Your task to perform on an android device: Open Google Chrome and click the shortcut for Amazon.com Image 0: 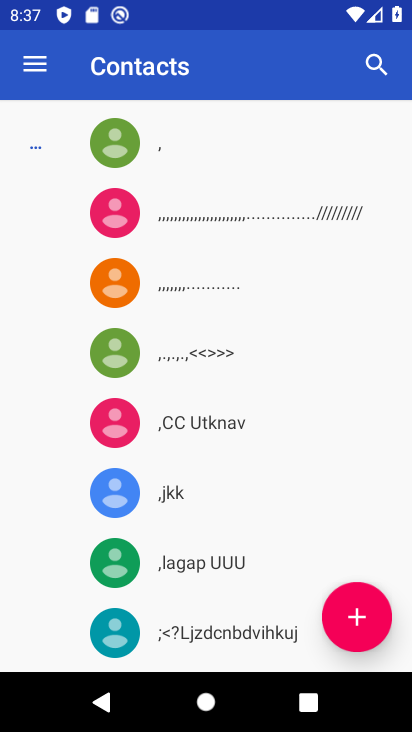
Step 0: press home button
Your task to perform on an android device: Open Google Chrome and click the shortcut for Amazon.com Image 1: 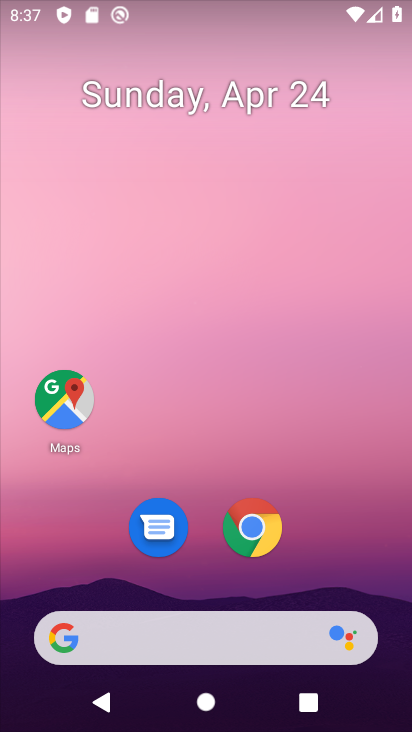
Step 1: drag from (363, 560) to (216, 58)
Your task to perform on an android device: Open Google Chrome and click the shortcut for Amazon.com Image 2: 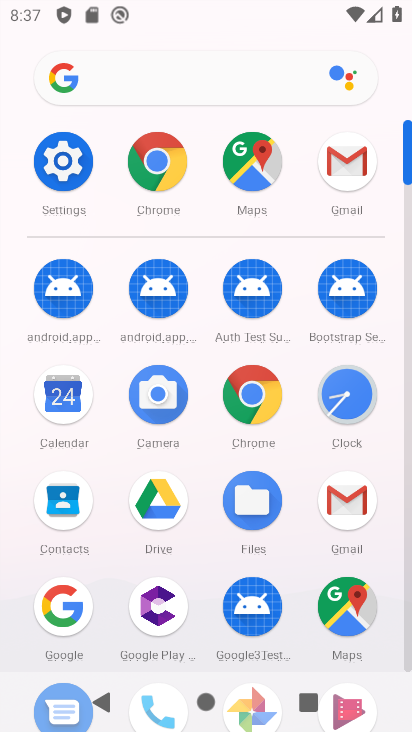
Step 2: click (137, 148)
Your task to perform on an android device: Open Google Chrome and click the shortcut for Amazon.com Image 3: 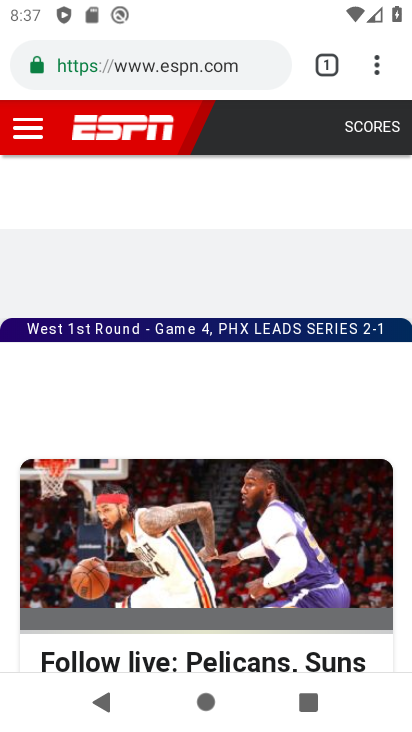
Step 3: press back button
Your task to perform on an android device: Open Google Chrome and click the shortcut for Amazon.com Image 4: 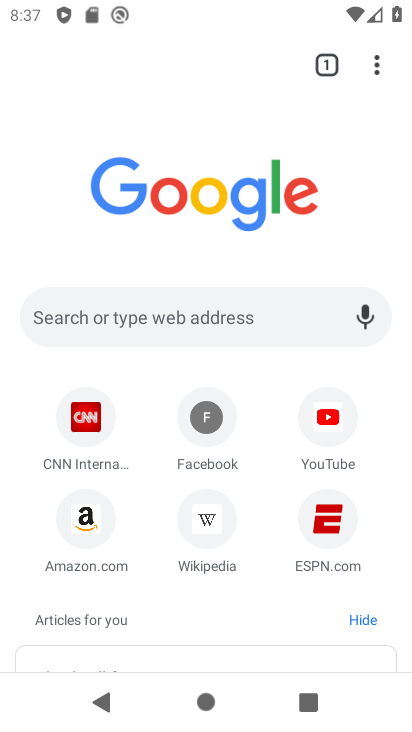
Step 4: click (93, 531)
Your task to perform on an android device: Open Google Chrome and click the shortcut for Amazon.com Image 5: 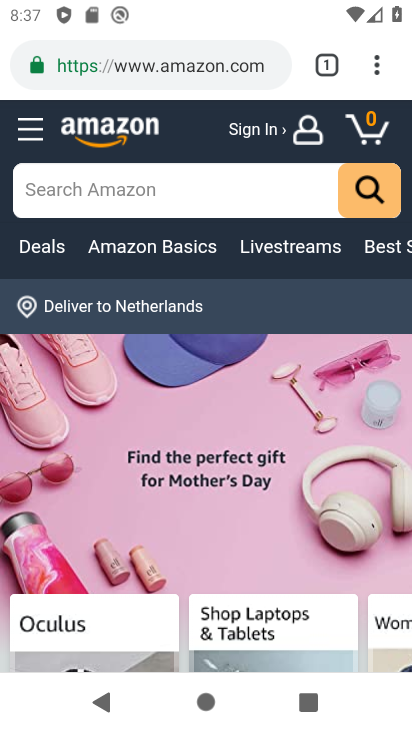
Step 5: task complete